Your task to perform on an android device: Open Google Maps and go to "Timeline" Image 0: 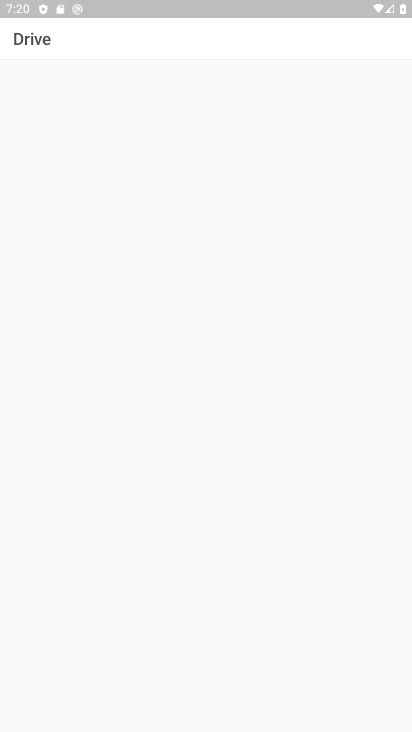
Step 0: press home button
Your task to perform on an android device: Open Google Maps and go to "Timeline" Image 1: 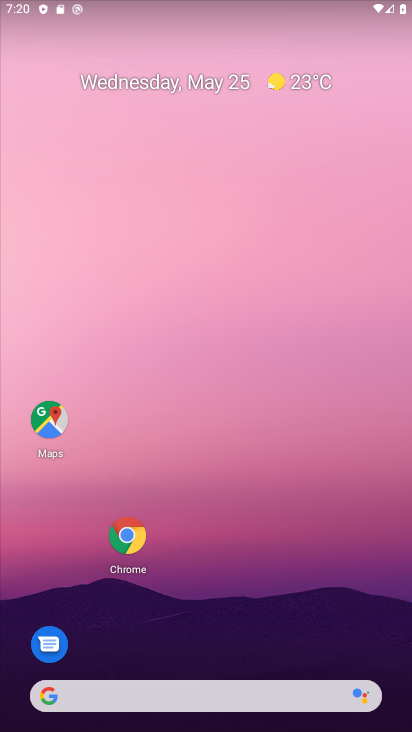
Step 1: drag from (168, 697) to (109, 268)
Your task to perform on an android device: Open Google Maps and go to "Timeline" Image 2: 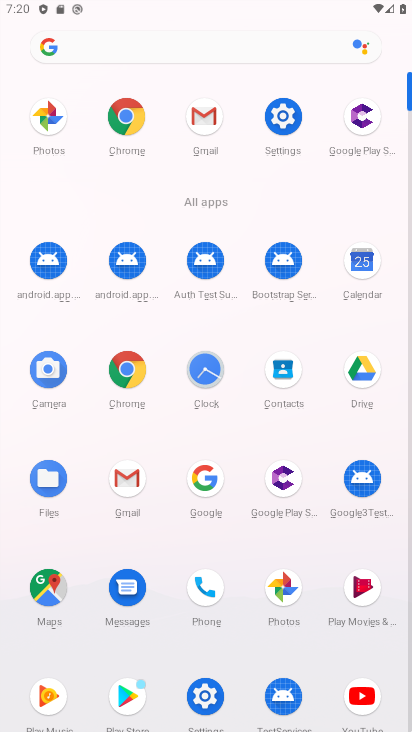
Step 2: click (30, 600)
Your task to perform on an android device: Open Google Maps and go to "Timeline" Image 3: 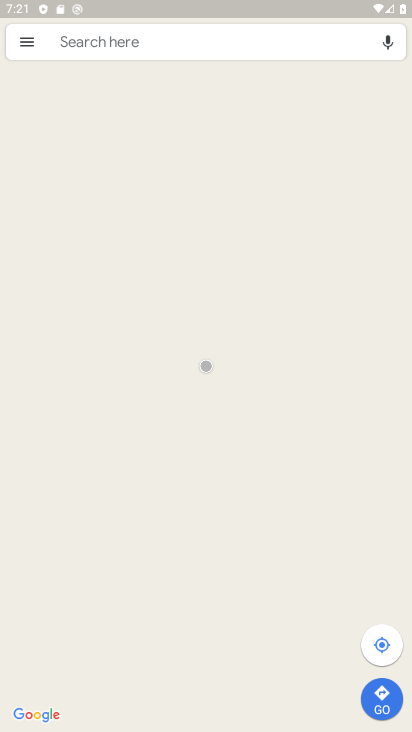
Step 3: click (23, 42)
Your task to perform on an android device: Open Google Maps and go to "Timeline" Image 4: 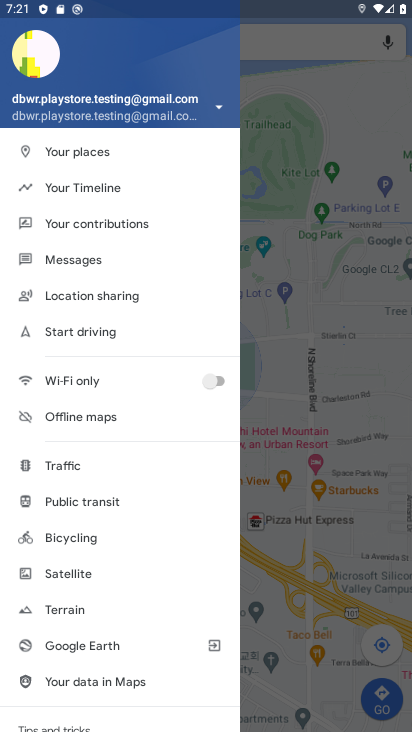
Step 4: click (73, 193)
Your task to perform on an android device: Open Google Maps and go to "Timeline" Image 5: 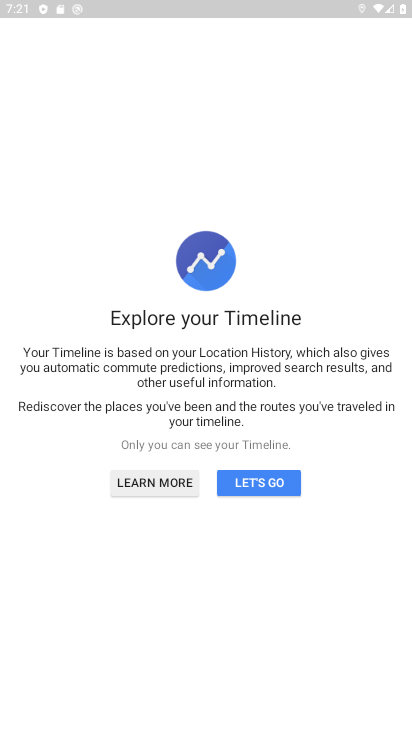
Step 5: click (243, 482)
Your task to perform on an android device: Open Google Maps and go to "Timeline" Image 6: 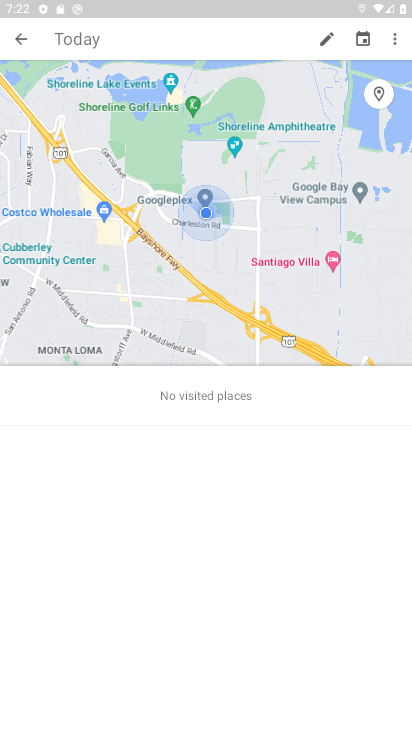
Step 6: task complete